Your task to perform on an android device: Open sound settings Image 0: 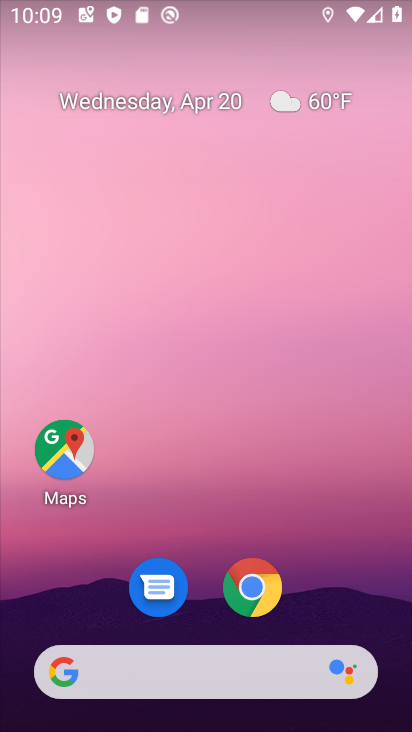
Step 0: drag from (316, 583) to (182, 68)
Your task to perform on an android device: Open sound settings Image 1: 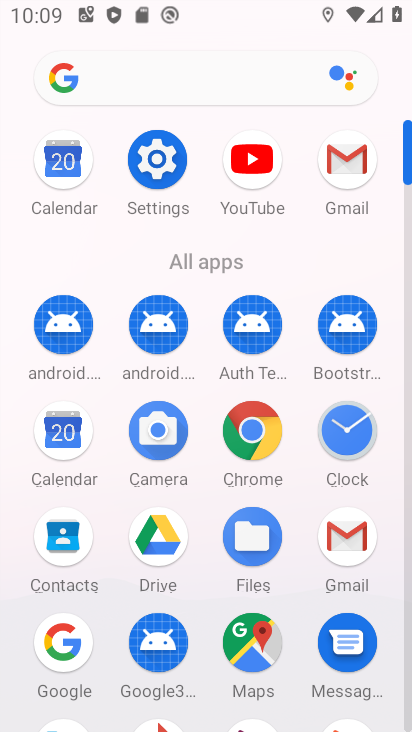
Step 1: click (160, 172)
Your task to perform on an android device: Open sound settings Image 2: 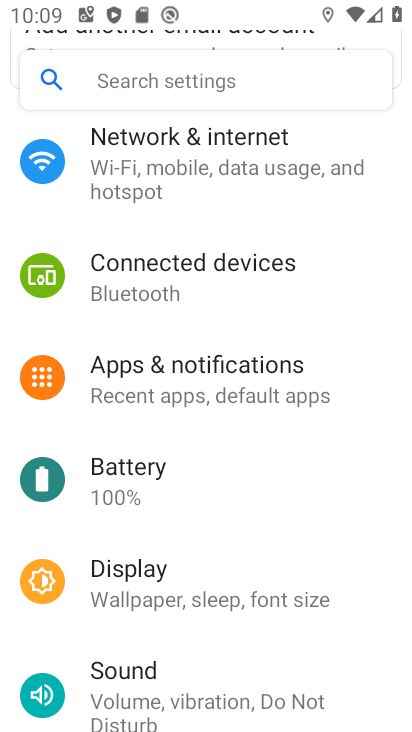
Step 2: click (155, 693)
Your task to perform on an android device: Open sound settings Image 3: 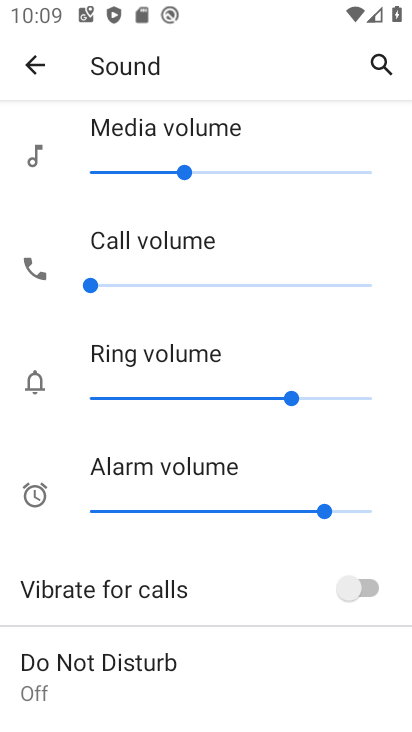
Step 3: task complete